Your task to perform on an android device: Show me popular videos on Youtube Image 0: 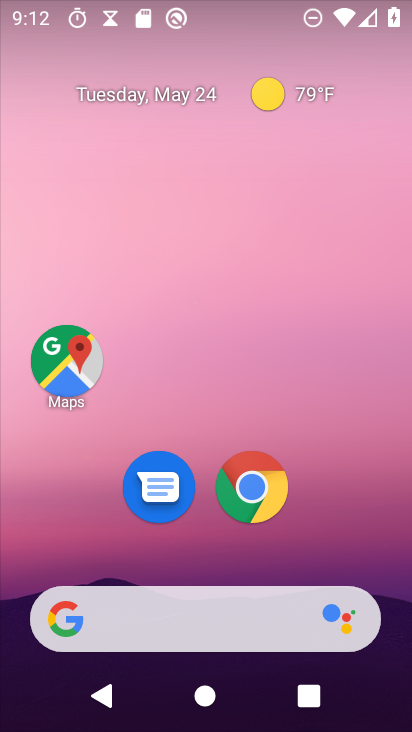
Step 0: drag from (21, 568) to (234, 149)
Your task to perform on an android device: Show me popular videos on Youtube Image 1: 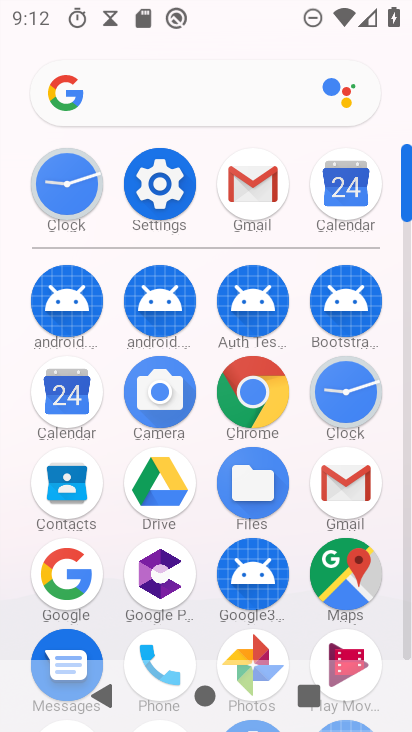
Step 1: task complete